Your task to perform on an android device: Open Chrome and go to settings Image 0: 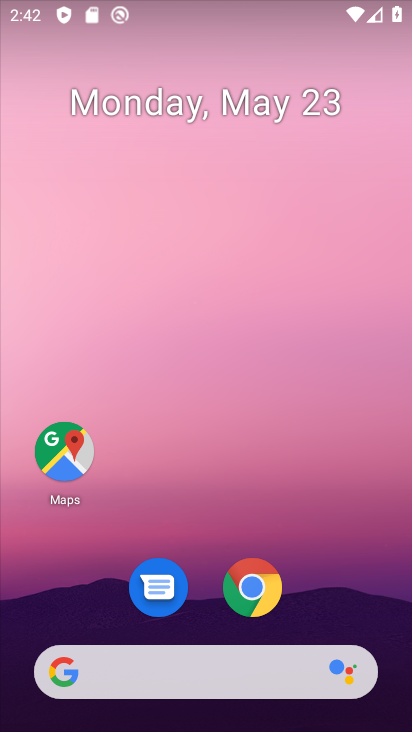
Step 0: click (253, 588)
Your task to perform on an android device: Open Chrome and go to settings Image 1: 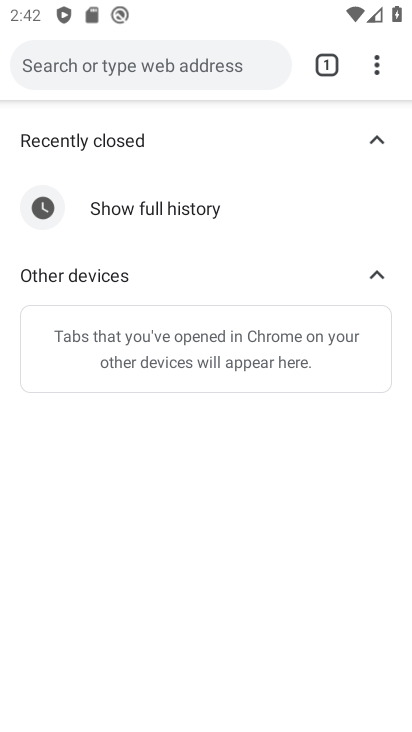
Step 1: click (379, 67)
Your task to perform on an android device: Open Chrome and go to settings Image 2: 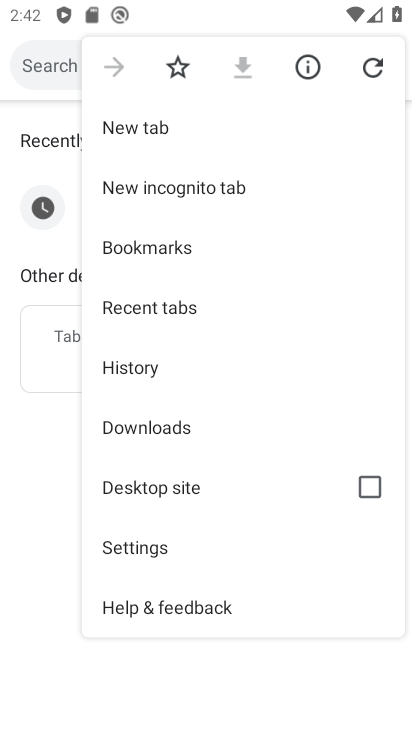
Step 2: click (141, 552)
Your task to perform on an android device: Open Chrome and go to settings Image 3: 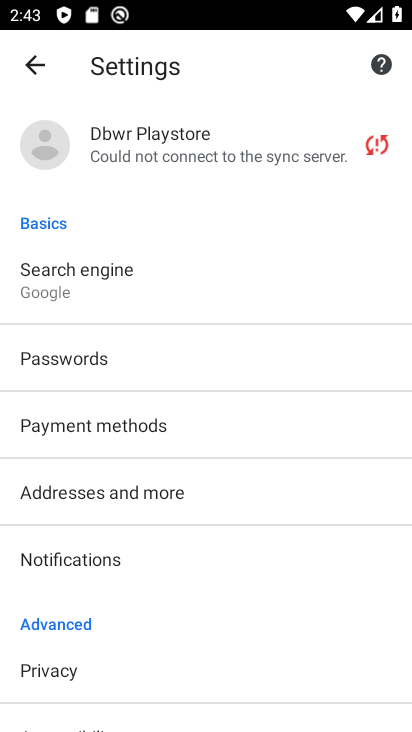
Step 3: task complete